Your task to perform on an android device: change text size in settings app Image 0: 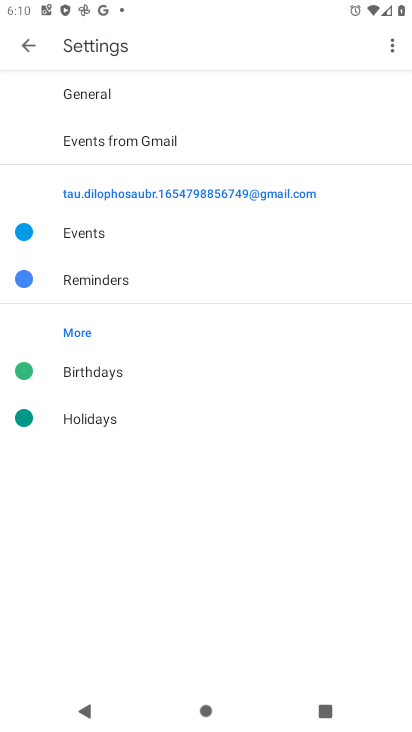
Step 0: press back button
Your task to perform on an android device: change text size in settings app Image 1: 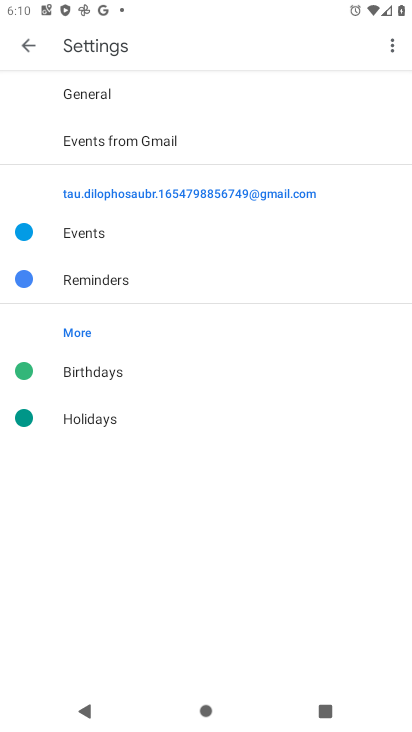
Step 1: press home button
Your task to perform on an android device: change text size in settings app Image 2: 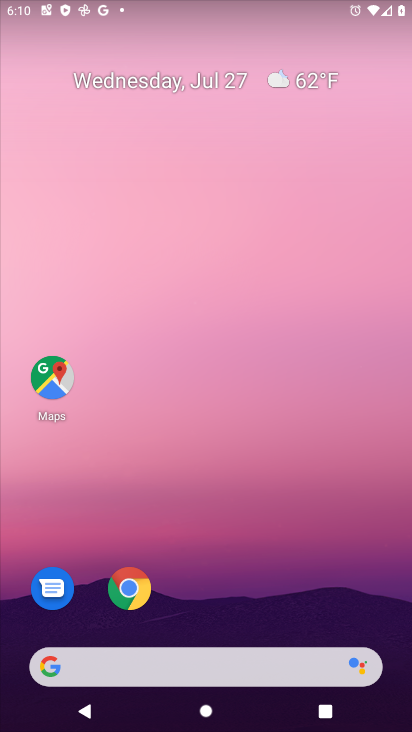
Step 2: drag from (263, 577) to (161, 613)
Your task to perform on an android device: change text size in settings app Image 3: 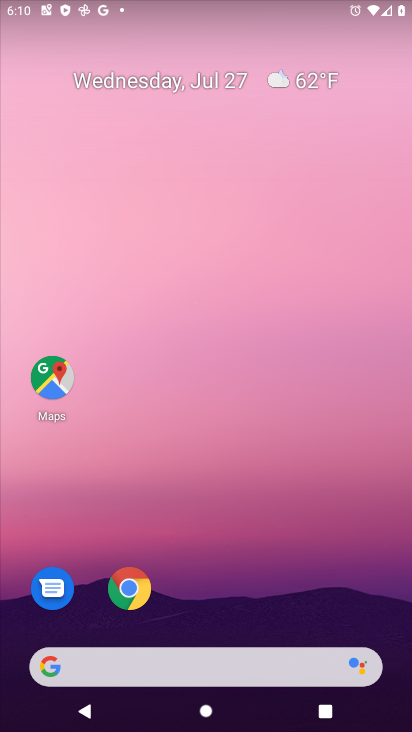
Step 3: drag from (175, 538) to (135, 219)
Your task to perform on an android device: change text size in settings app Image 4: 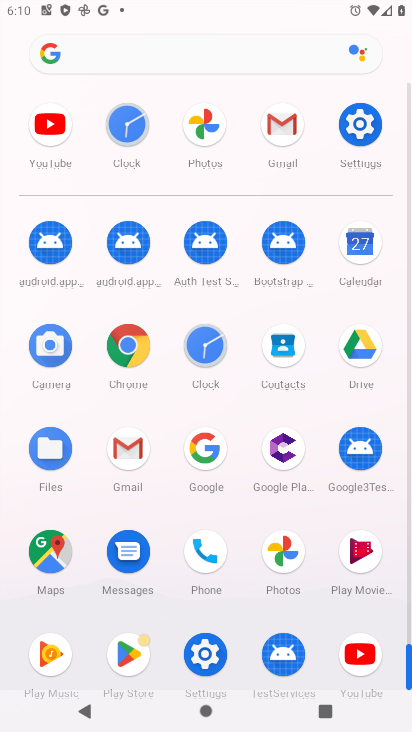
Step 4: click (369, 125)
Your task to perform on an android device: change text size in settings app Image 5: 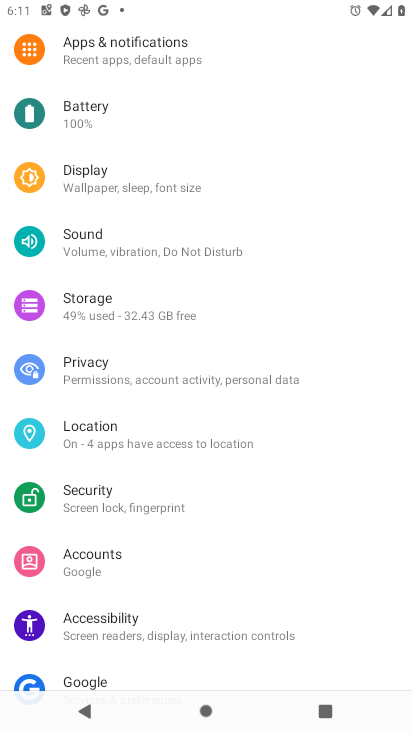
Step 5: drag from (103, 505) to (103, 205)
Your task to perform on an android device: change text size in settings app Image 6: 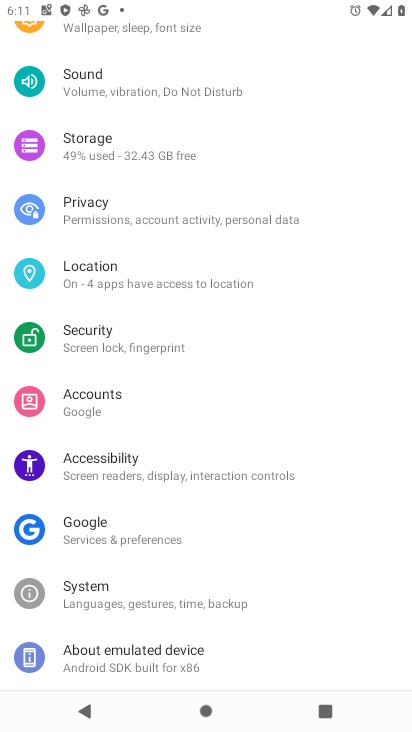
Step 6: drag from (112, 198) to (134, 707)
Your task to perform on an android device: change text size in settings app Image 7: 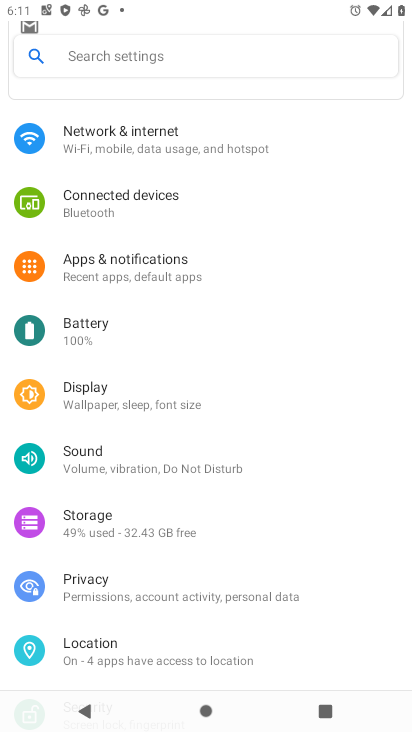
Step 7: click (80, 389)
Your task to perform on an android device: change text size in settings app Image 8: 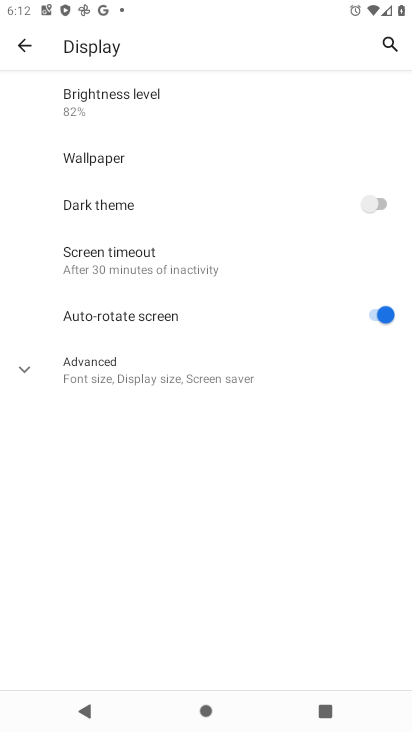
Step 8: click (116, 388)
Your task to perform on an android device: change text size in settings app Image 9: 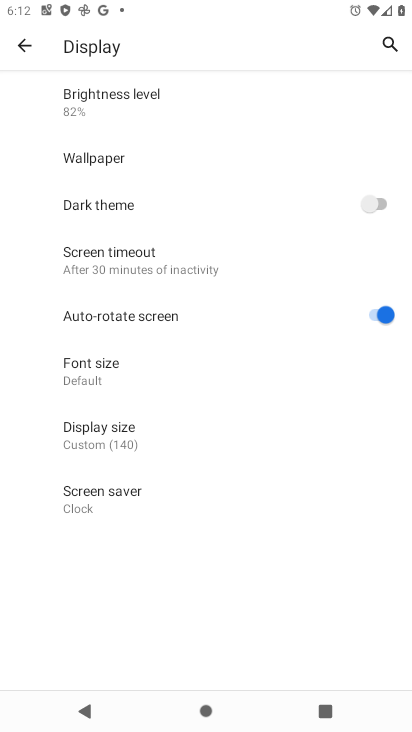
Step 9: click (82, 375)
Your task to perform on an android device: change text size in settings app Image 10: 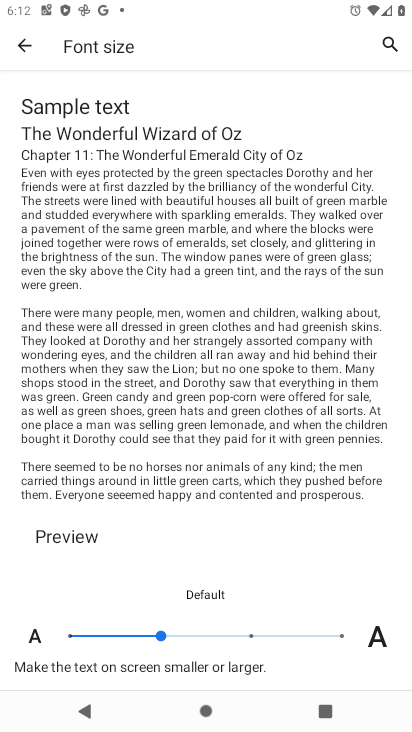
Step 10: click (260, 632)
Your task to perform on an android device: change text size in settings app Image 11: 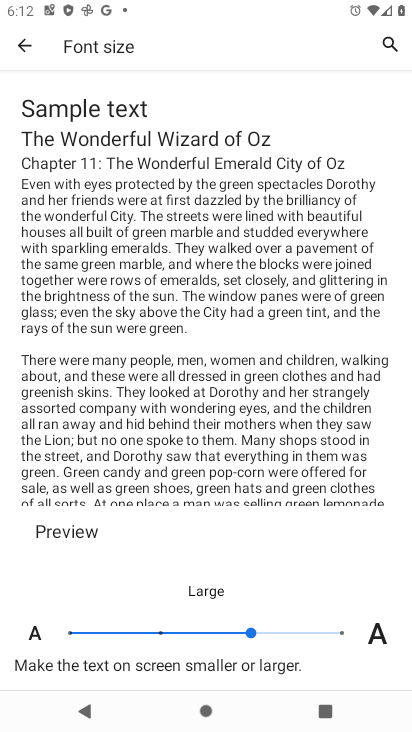
Step 11: task complete